Your task to perform on an android device: Search for pizza restaurants on Maps Image 0: 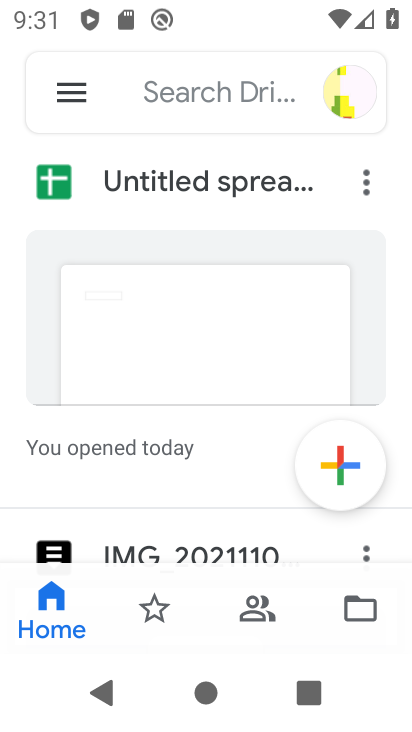
Step 0: press home button
Your task to perform on an android device: Search for pizza restaurants on Maps Image 1: 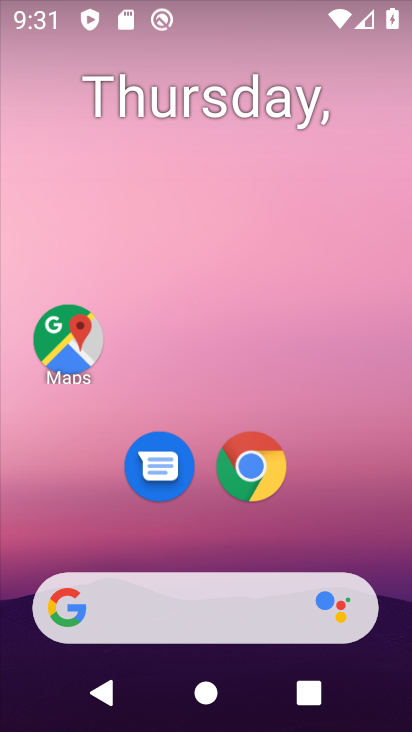
Step 1: drag from (365, 497) to (360, 200)
Your task to perform on an android device: Search for pizza restaurants on Maps Image 2: 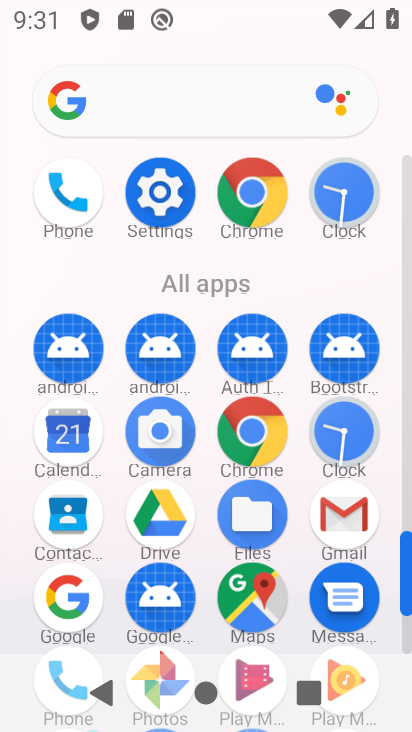
Step 2: drag from (285, 549) to (296, 287)
Your task to perform on an android device: Search for pizza restaurants on Maps Image 3: 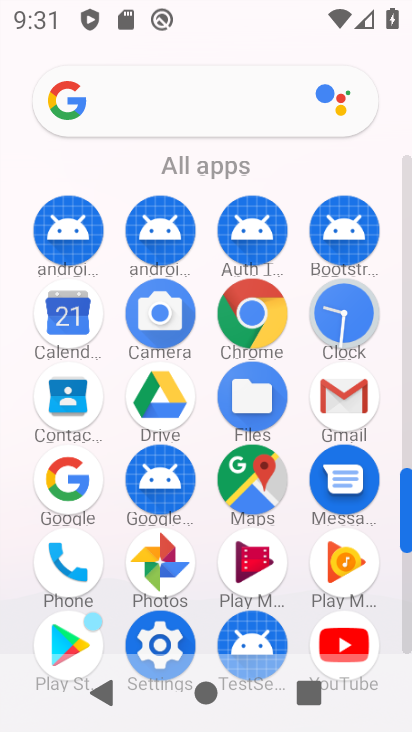
Step 3: click (234, 488)
Your task to perform on an android device: Search for pizza restaurants on Maps Image 4: 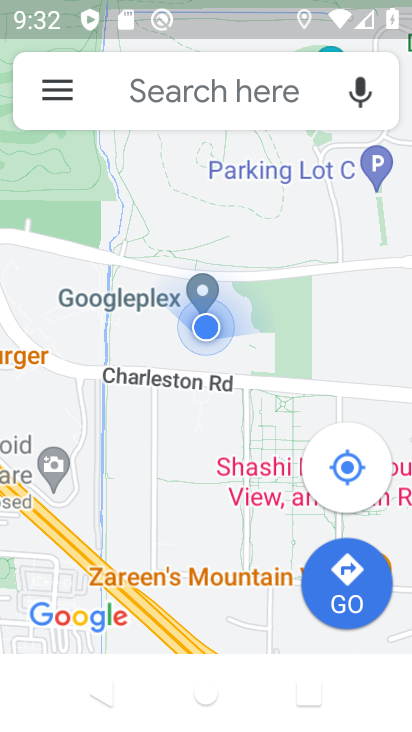
Step 4: click (183, 101)
Your task to perform on an android device: Search for pizza restaurants on Maps Image 5: 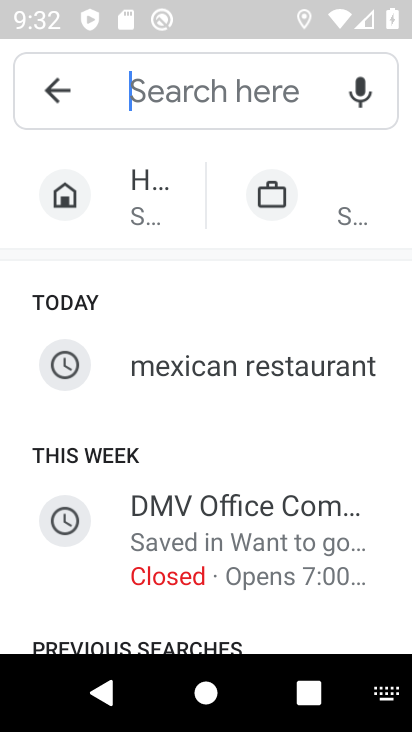
Step 5: type "pizza restaurants"
Your task to perform on an android device: Search for pizza restaurants on Maps Image 6: 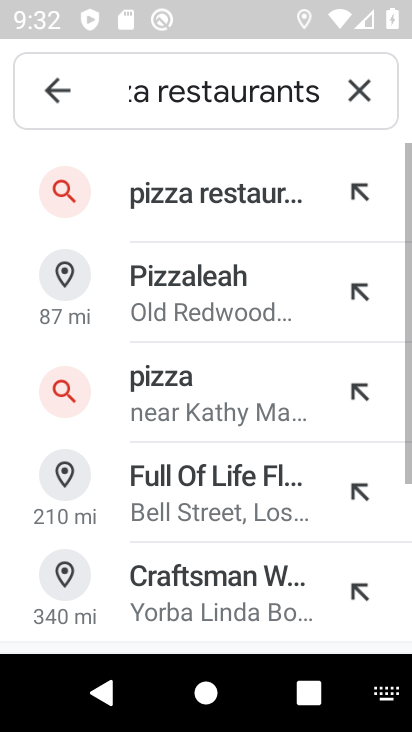
Step 6: click (235, 205)
Your task to perform on an android device: Search for pizza restaurants on Maps Image 7: 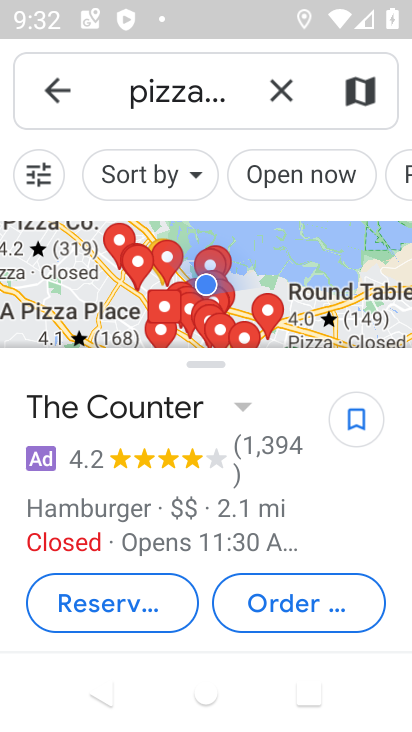
Step 7: task complete